Your task to perform on an android device: install app "Facebook Lite" Image 0: 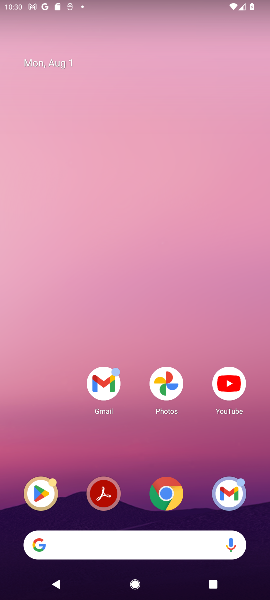
Step 0: click (41, 504)
Your task to perform on an android device: install app "Facebook Lite" Image 1: 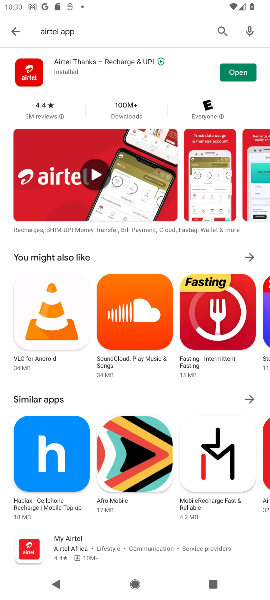
Step 1: click (222, 40)
Your task to perform on an android device: install app "Facebook Lite" Image 2: 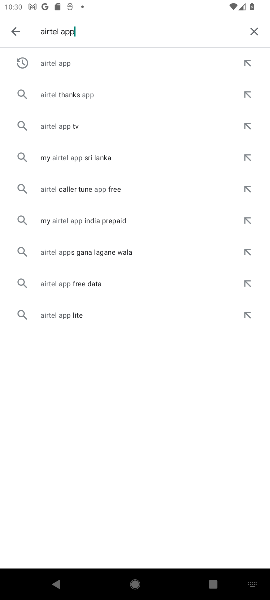
Step 2: click (254, 22)
Your task to perform on an android device: install app "Facebook Lite" Image 3: 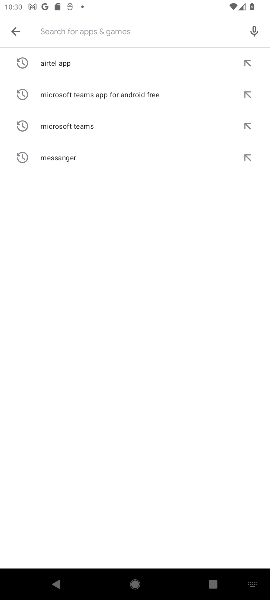
Step 3: type "facebook"
Your task to perform on an android device: install app "Facebook Lite" Image 4: 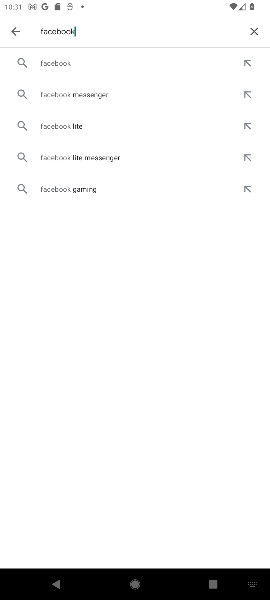
Step 4: click (150, 60)
Your task to perform on an android device: install app "Facebook Lite" Image 5: 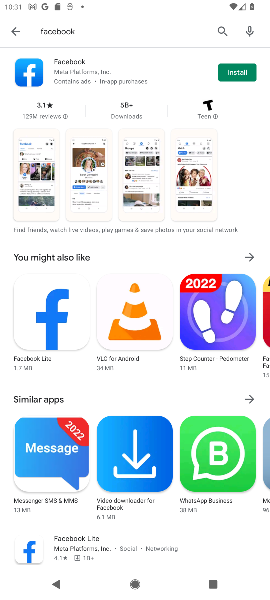
Step 5: click (234, 76)
Your task to perform on an android device: install app "Facebook Lite" Image 6: 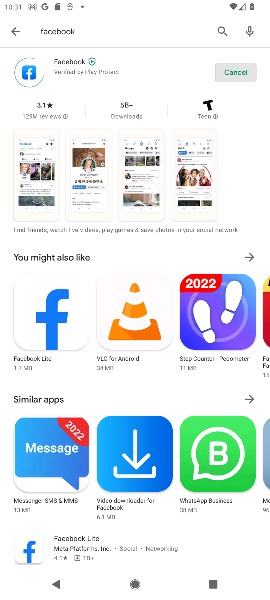
Step 6: task complete